Your task to perform on an android device: set the stopwatch Image 0: 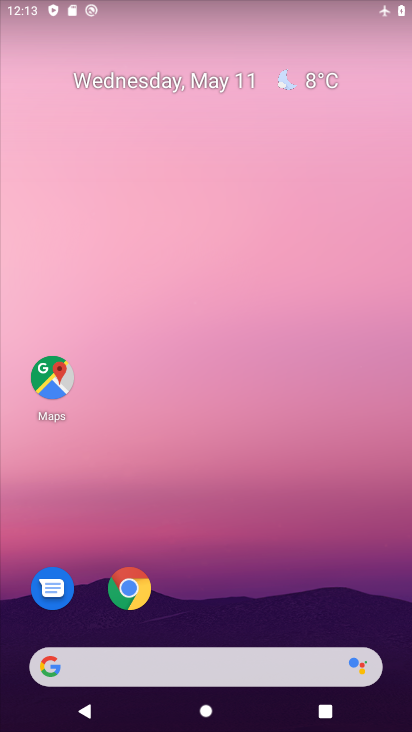
Step 0: drag from (185, 643) to (271, 173)
Your task to perform on an android device: set the stopwatch Image 1: 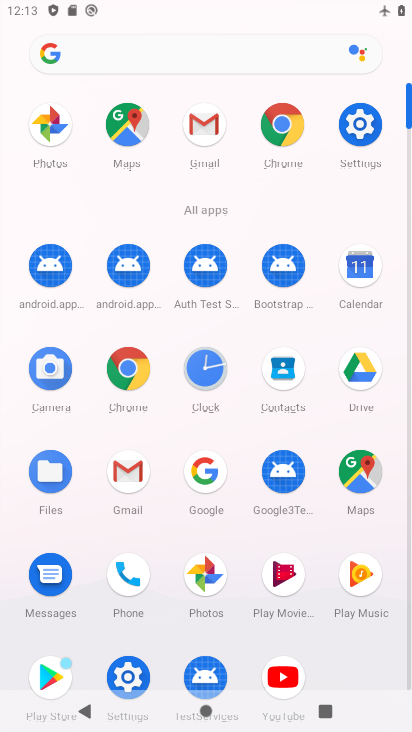
Step 1: click (207, 361)
Your task to perform on an android device: set the stopwatch Image 2: 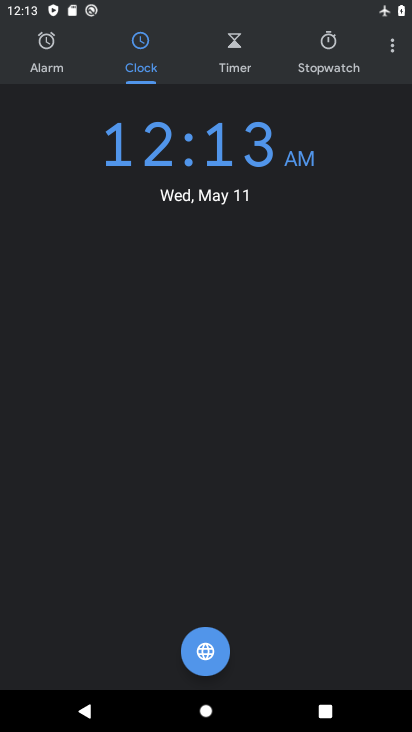
Step 2: click (326, 58)
Your task to perform on an android device: set the stopwatch Image 3: 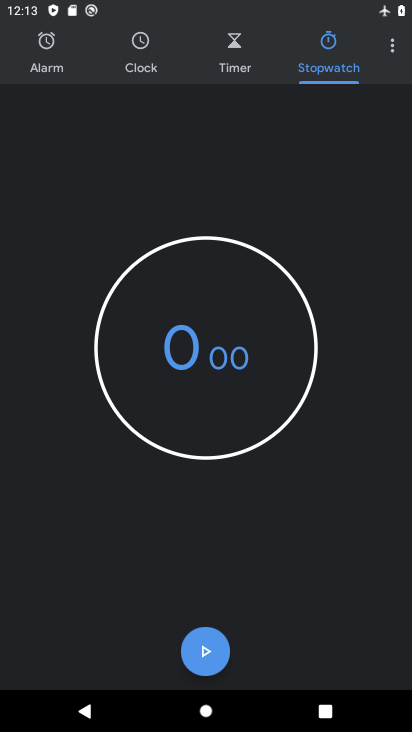
Step 3: click (201, 653)
Your task to perform on an android device: set the stopwatch Image 4: 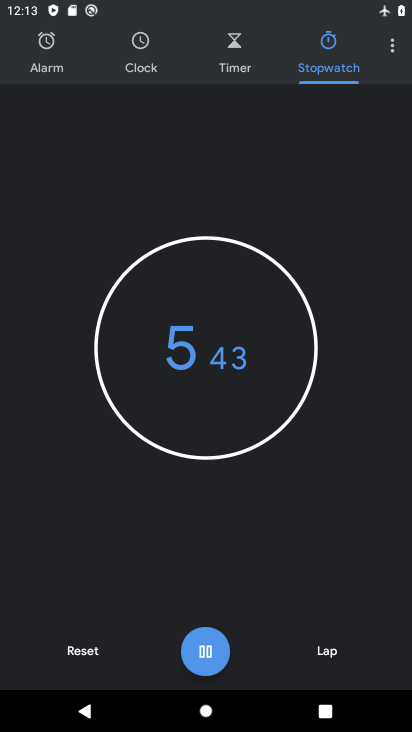
Step 4: task complete